Your task to perform on an android device: open sync settings in chrome Image 0: 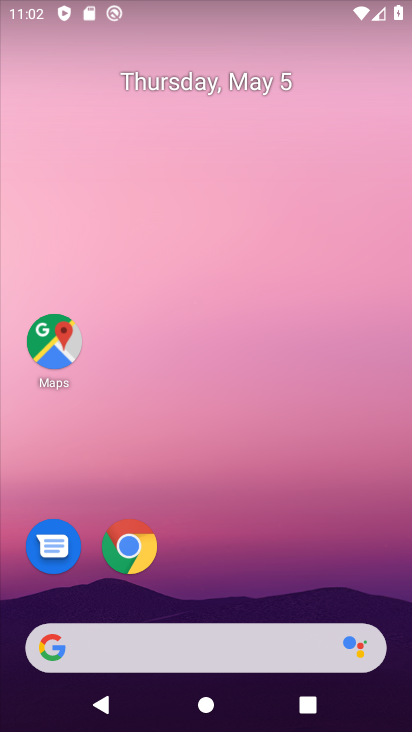
Step 0: click (123, 554)
Your task to perform on an android device: open sync settings in chrome Image 1: 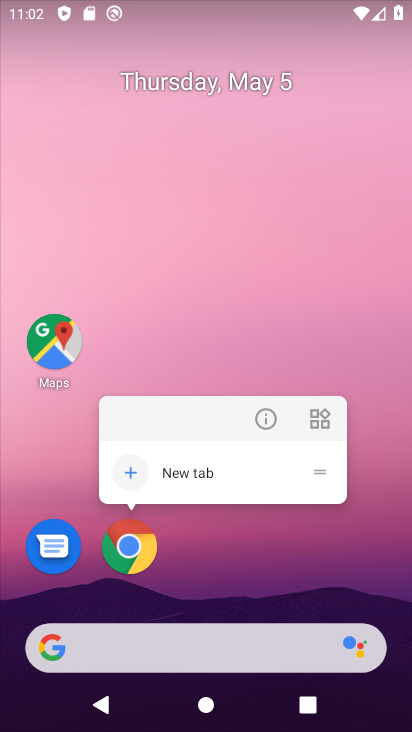
Step 1: click (131, 547)
Your task to perform on an android device: open sync settings in chrome Image 2: 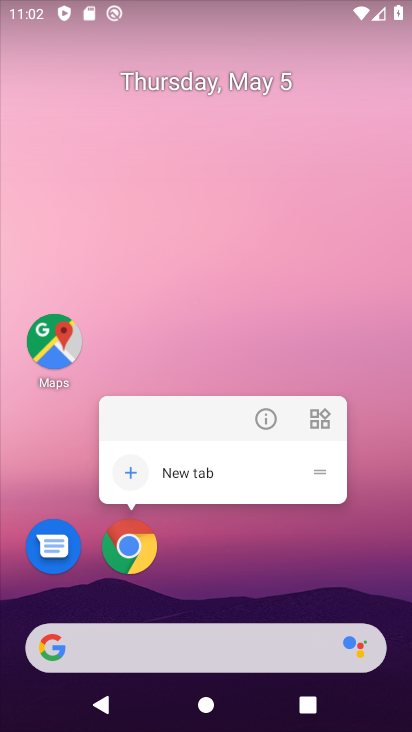
Step 2: click (260, 419)
Your task to perform on an android device: open sync settings in chrome Image 3: 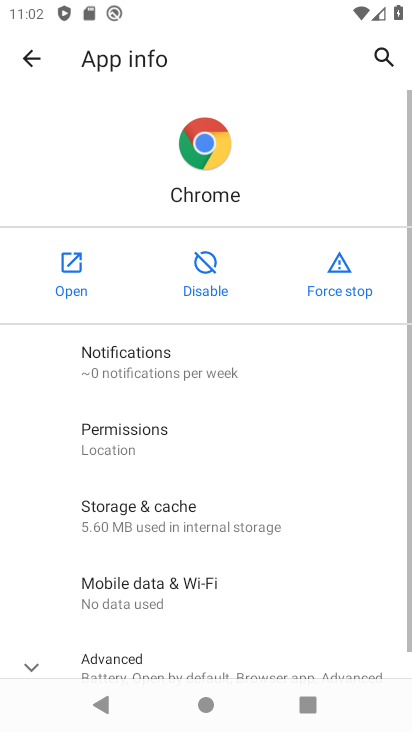
Step 3: click (69, 264)
Your task to perform on an android device: open sync settings in chrome Image 4: 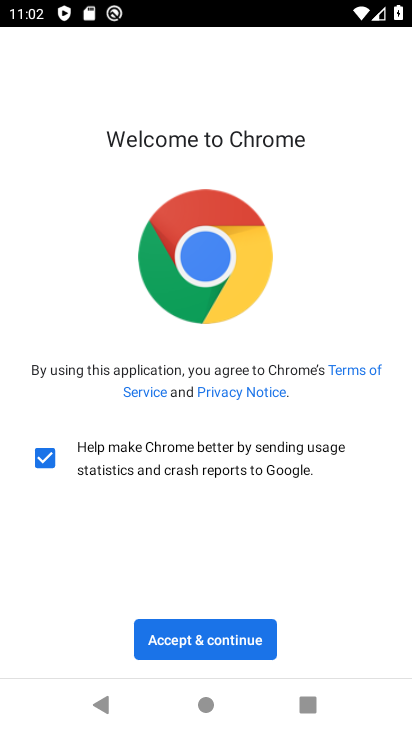
Step 4: click (208, 628)
Your task to perform on an android device: open sync settings in chrome Image 5: 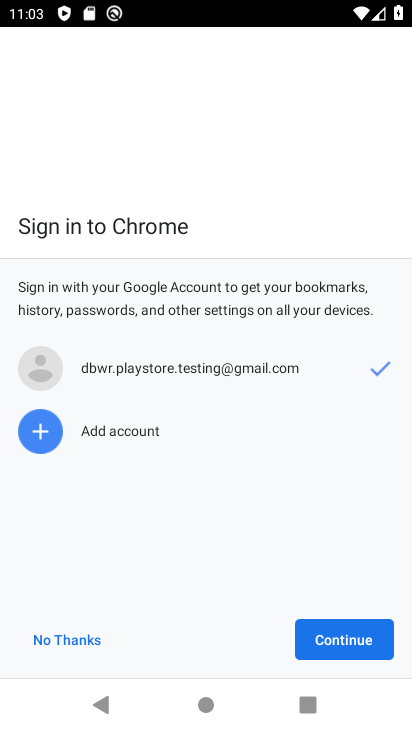
Step 5: click (73, 637)
Your task to perform on an android device: open sync settings in chrome Image 6: 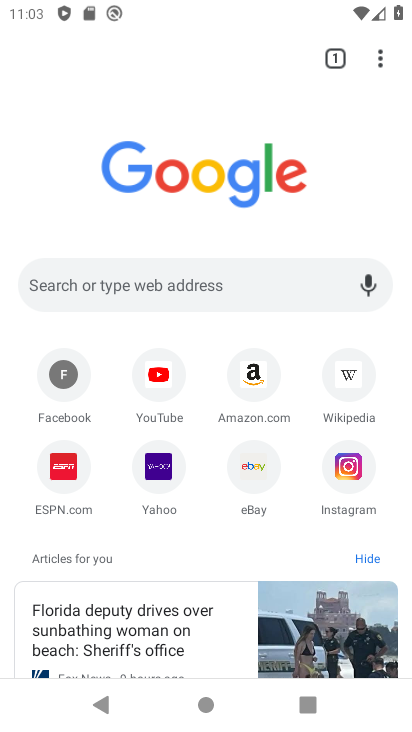
Step 6: click (385, 55)
Your task to perform on an android device: open sync settings in chrome Image 7: 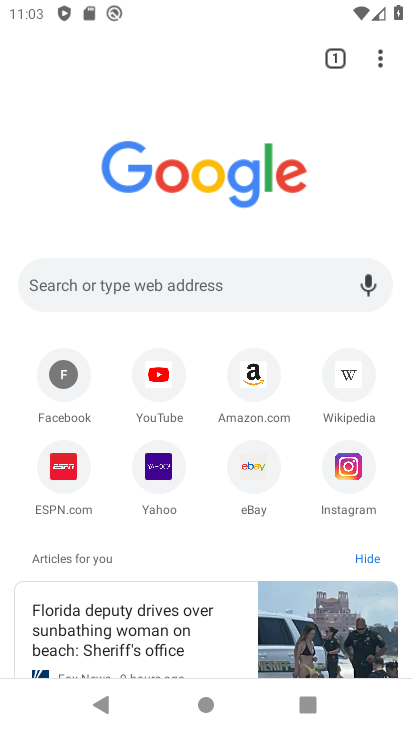
Step 7: click (376, 59)
Your task to perform on an android device: open sync settings in chrome Image 8: 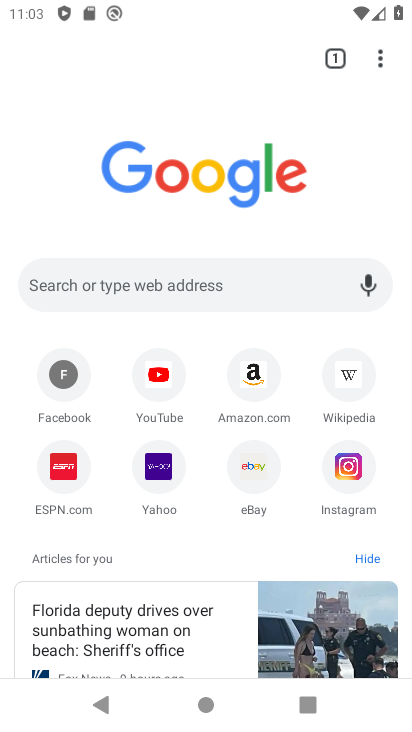
Step 8: click (376, 59)
Your task to perform on an android device: open sync settings in chrome Image 9: 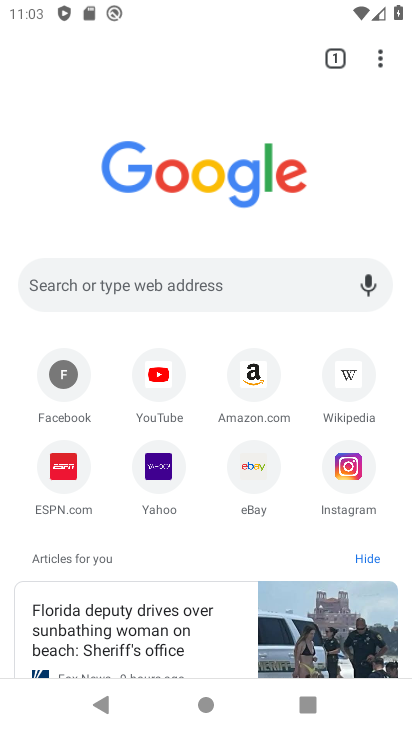
Step 9: click (384, 59)
Your task to perform on an android device: open sync settings in chrome Image 10: 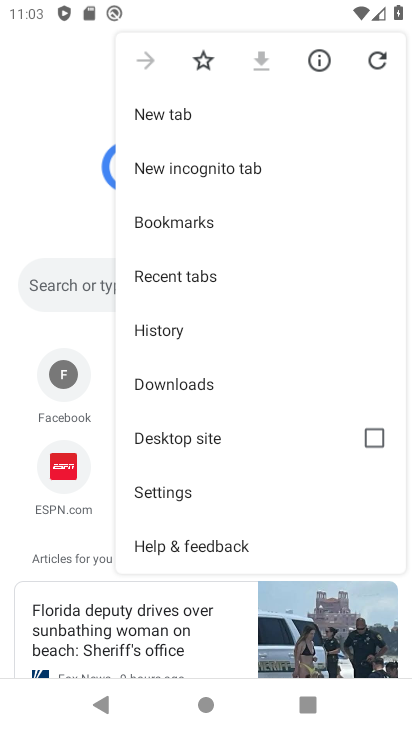
Step 10: click (187, 491)
Your task to perform on an android device: open sync settings in chrome Image 11: 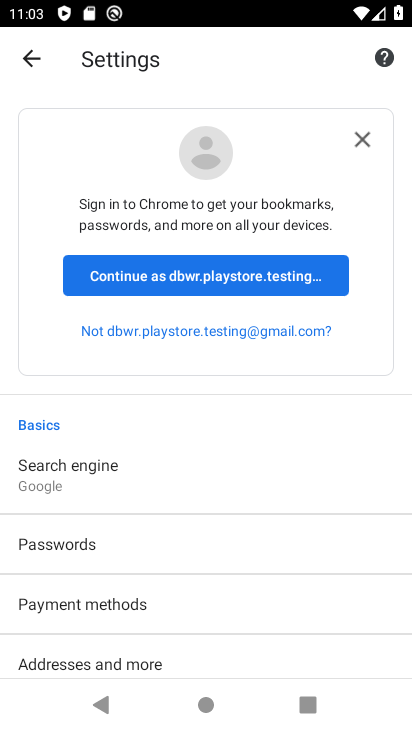
Step 11: drag from (200, 620) to (296, 288)
Your task to perform on an android device: open sync settings in chrome Image 12: 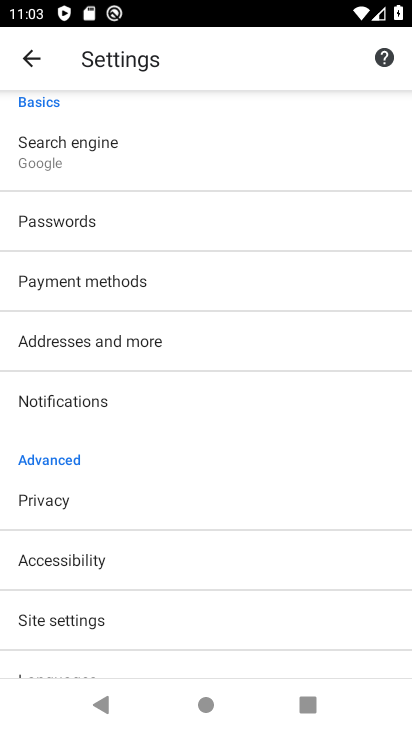
Step 12: drag from (77, 607) to (206, 302)
Your task to perform on an android device: open sync settings in chrome Image 13: 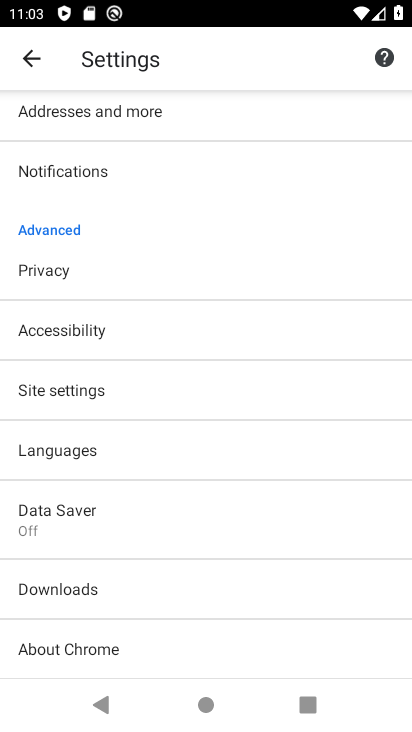
Step 13: drag from (133, 601) to (262, 326)
Your task to perform on an android device: open sync settings in chrome Image 14: 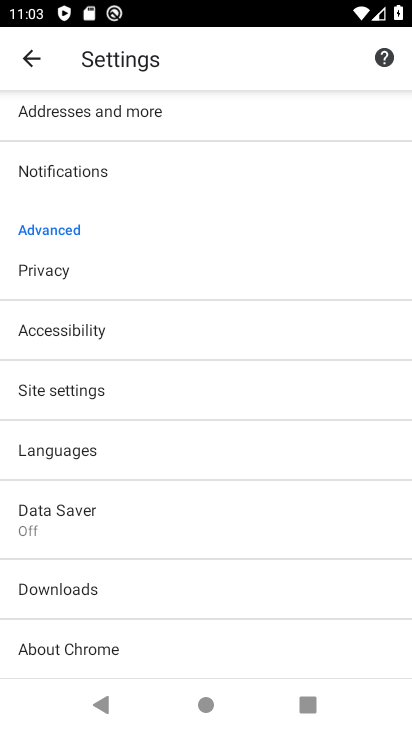
Step 14: drag from (145, 630) to (253, 348)
Your task to perform on an android device: open sync settings in chrome Image 15: 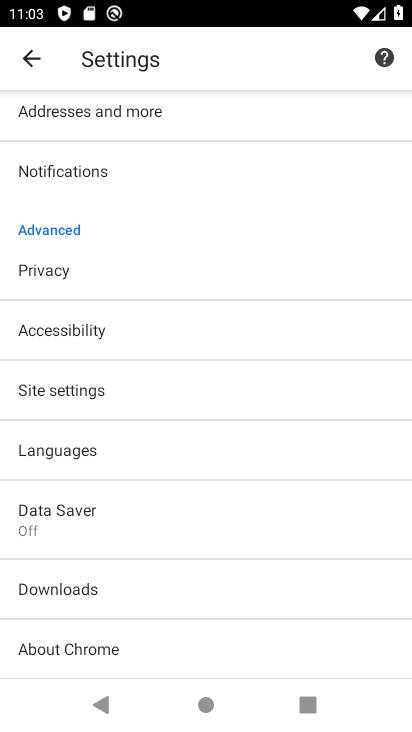
Step 15: click (127, 657)
Your task to perform on an android device: open sync settings in chrome Image 16: 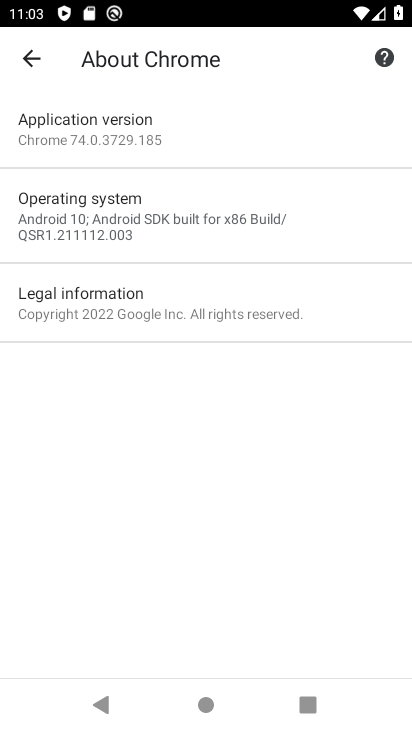
Step 16: press back button
Your task to perform on an android device: open sync settings in chrome Image 17: 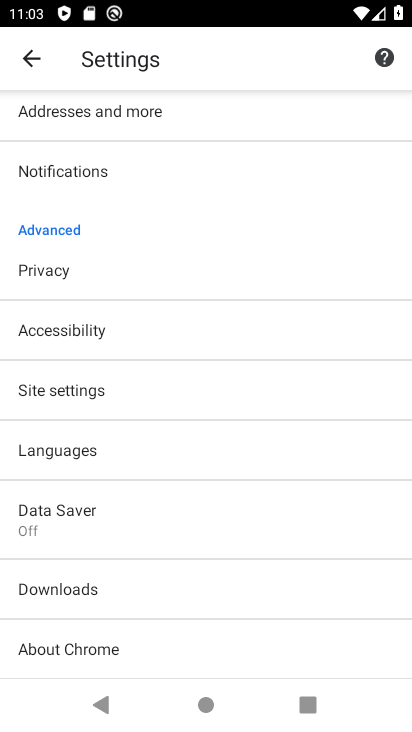
Step 17: click (142, 331)
Your task to perform on an android device: open sync settings in chrome Image 18: 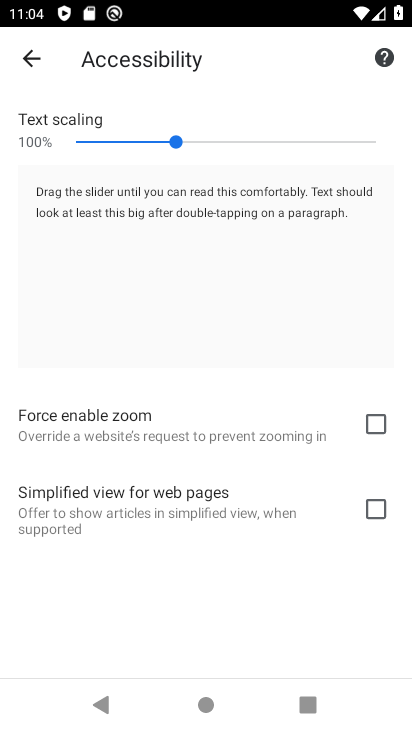
Step 18: press back button
Your task to perform on an android device: open sync settings in chrome Image 19: 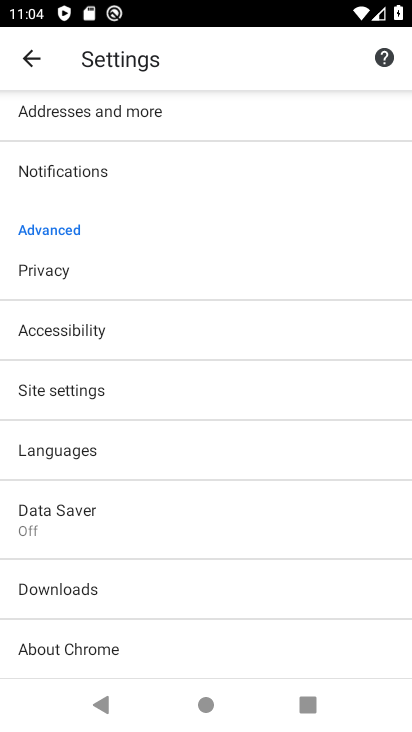
Step 19: click (254, 383)
Your task to perform on an android device: open sync settings in chrome Image 20: 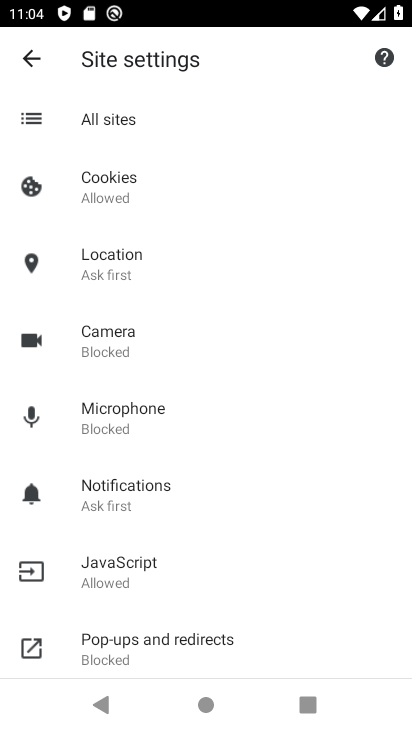
Step 20: drag from (185, 636) to (248, 315)
Your task to perform on an android device: open sync settings in chrome Image 21: 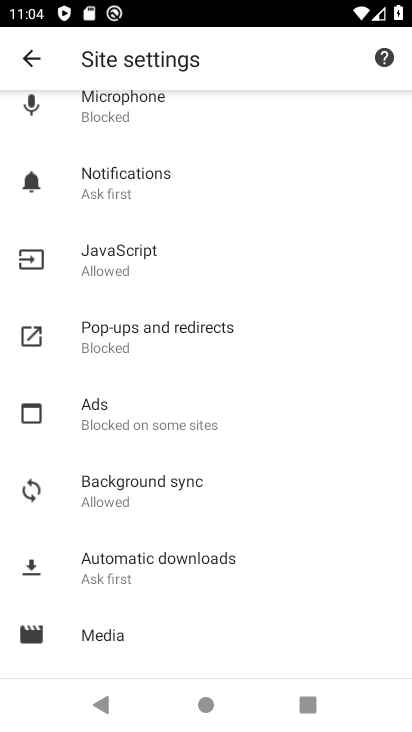
Step 21: click (186, 485)
Your task to perform on an android device: open sync settings in chrome Image 22: 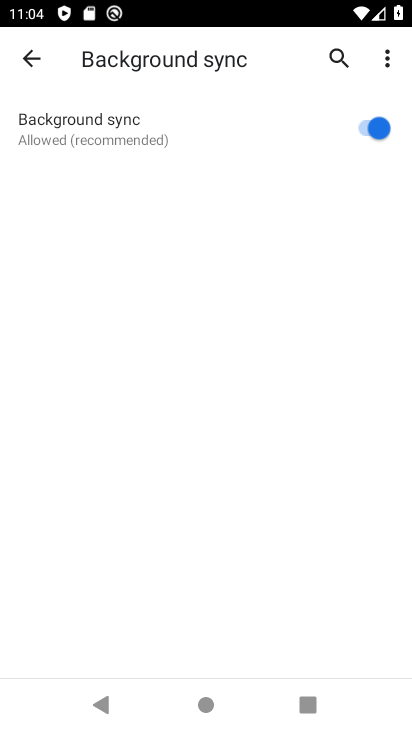
Step 22: click (88, 150)
Your task to perform on an android device: open sync settings in chrome Image 23: 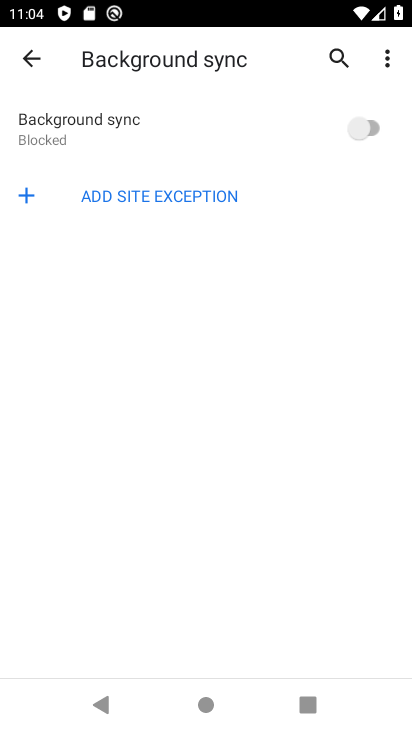
Step 23: click (360, 123)
Your task to perform on an android device: open sync settings in chrome Image 24: 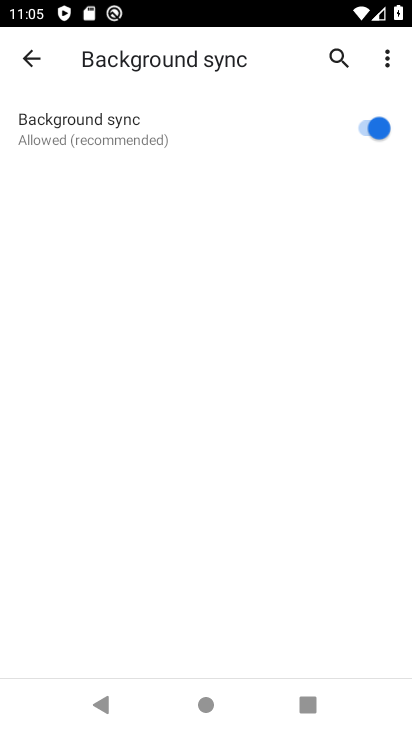
Step 24: task complete